Your task to perform on an android device: Open Youtube and go to the subscriptions tab Image 0: 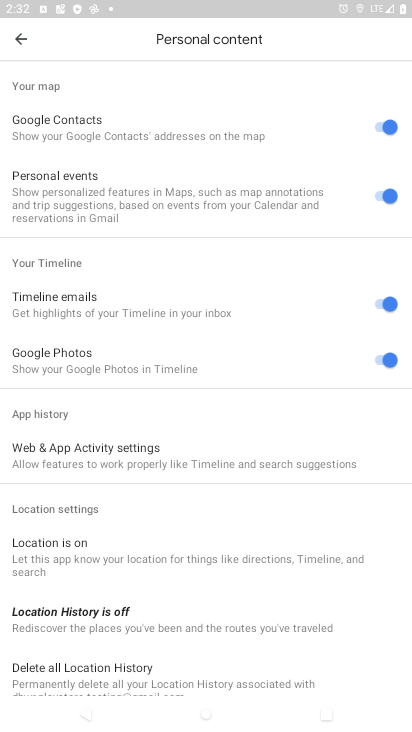
Step 0: press home button
Your task to perform on an android device: Open Youtube and go to the subscriptions tab Image 1: 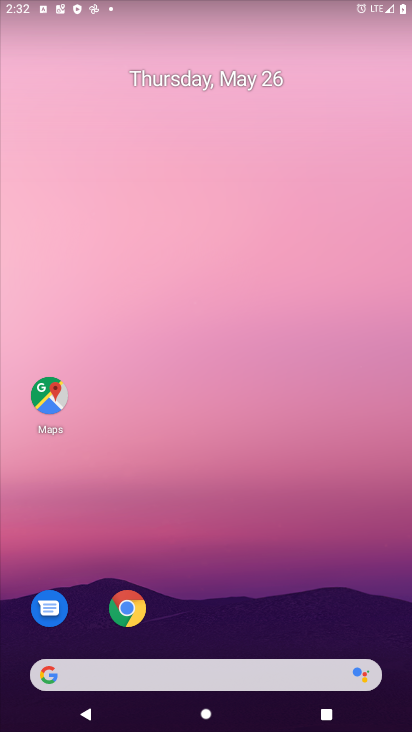
Step 1: drag from (337, 618) to (334, 379)
Your task to perform on an android device: Open Youtube and go to the subscriptions tab Image 2: 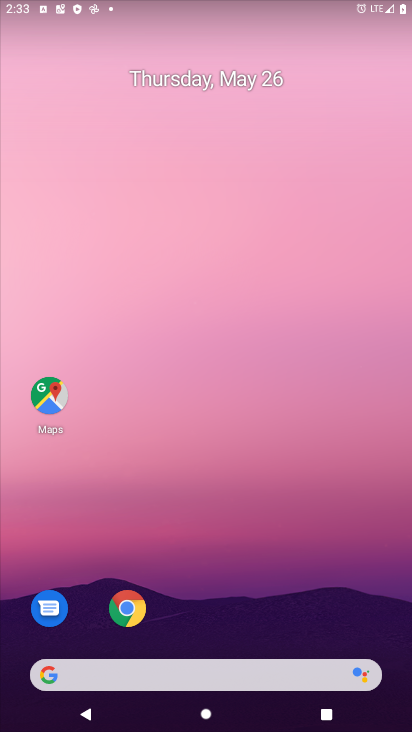
Step 2: drag from (304, 619) to (310, 203)
Your task to perform on an android device: Open Youtube and go to the subscriptions tab Image 3: 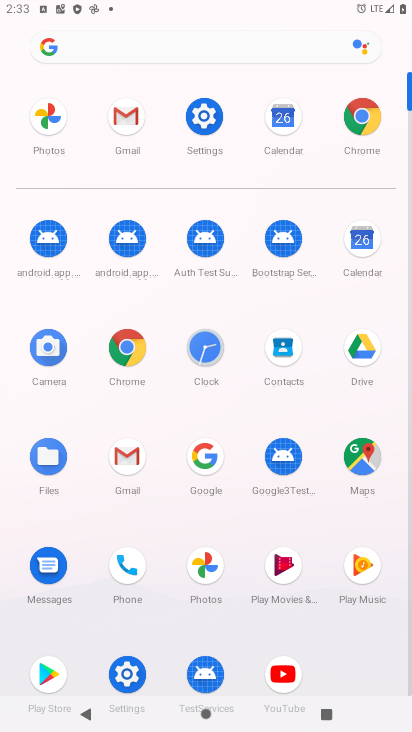
Step 3: click (282, 672)
Your task to perform on an android device: Open Youtube and go to the subscriptions tab Image 4: 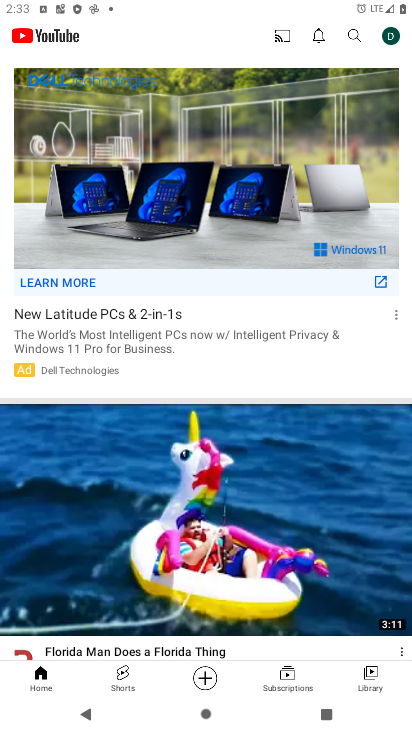
Step 4: click (280, 679)
Your task to perform on an android device: Open Youtube and go to the subscriptions tab Image 5: 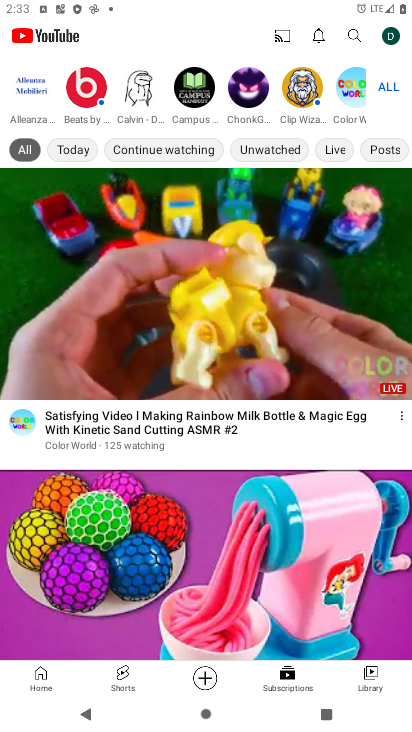
Step 5: task complete